Your task to perform on an android device: turn off notifications settings in the gmail app Image 0: 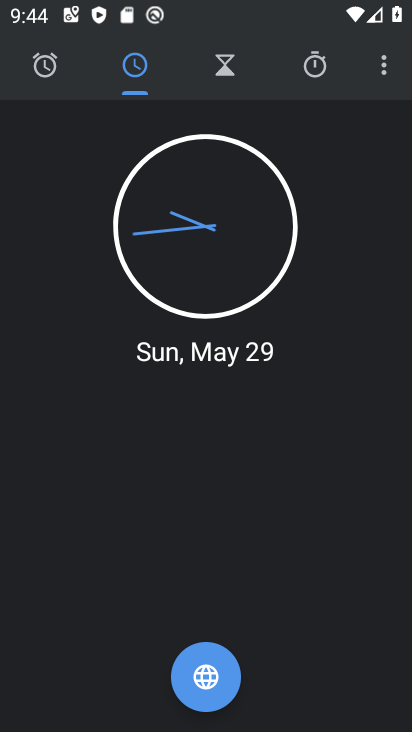
Step 0: press home button
Your task to perform on an android device: turn off notifications settings in the gmail app Image 1: 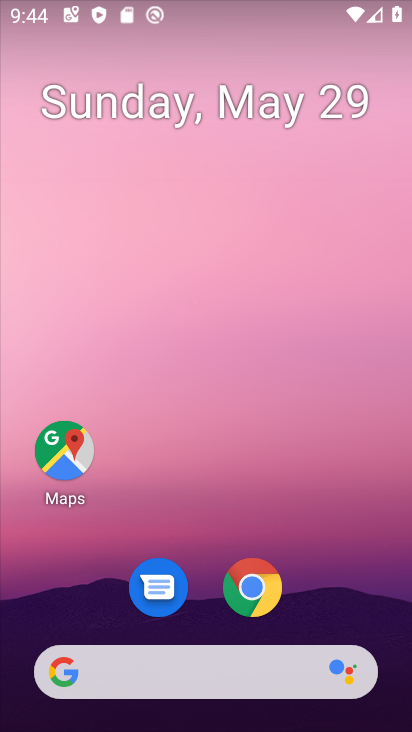
Step 1: drag from (317, 600) to (299, 76)
Your task to perform on an android device: turn off notifications settings in the gmail app Image 2: 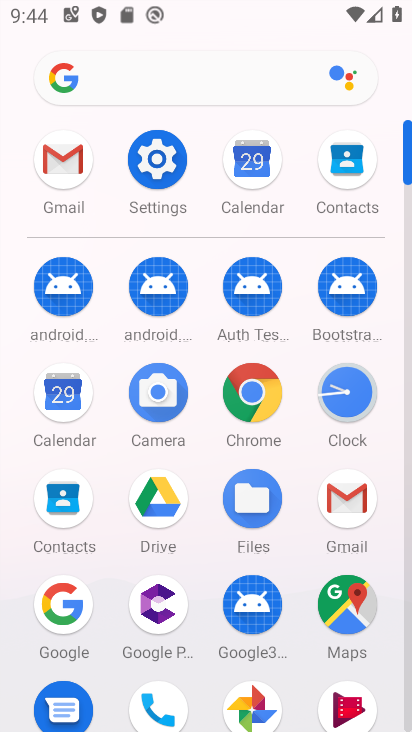
Step 2: click (53, 167)
Your task to perform on an android device: turn off notifications settings in the gmail app Image 3: 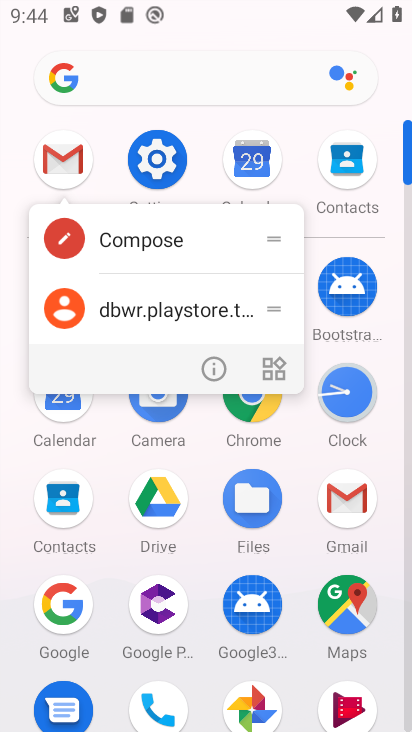
Step 3: click (218, 357)
Your task to perform on an android device: turn off notifications settings in the gmail app Image 4: 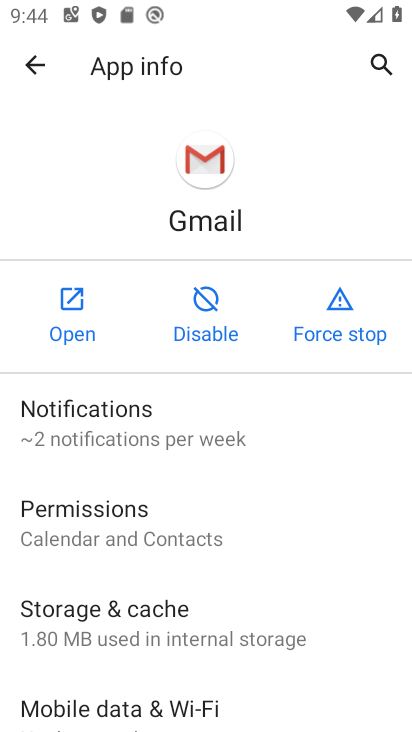
Step 4: click (155, 431)
Your task to perform on an android device: turn off notifications settings in the gmail app Image 5: 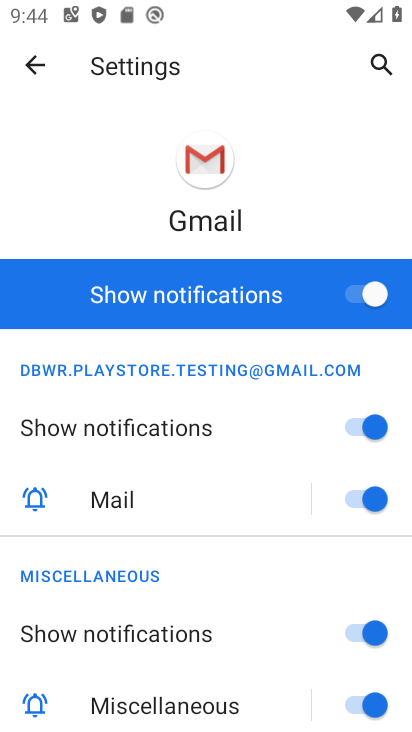
Step 5: click (372, 281)
Your task to perform on an android device: turn off notifications settings in the gmail app Image 6: 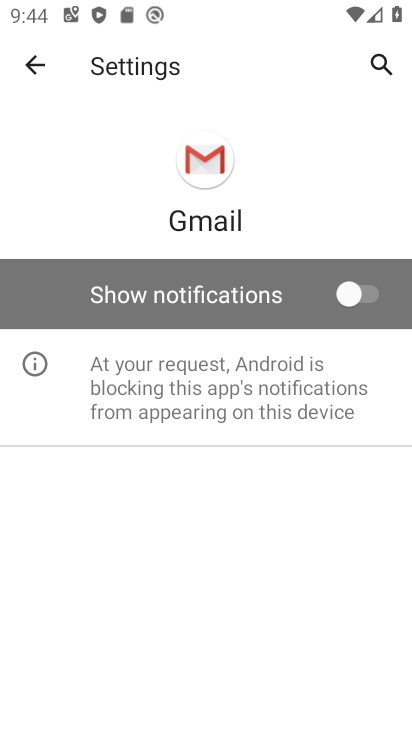
Step 6: task complete